Your task to perform on an android device: turn off sleep mode Image 0: 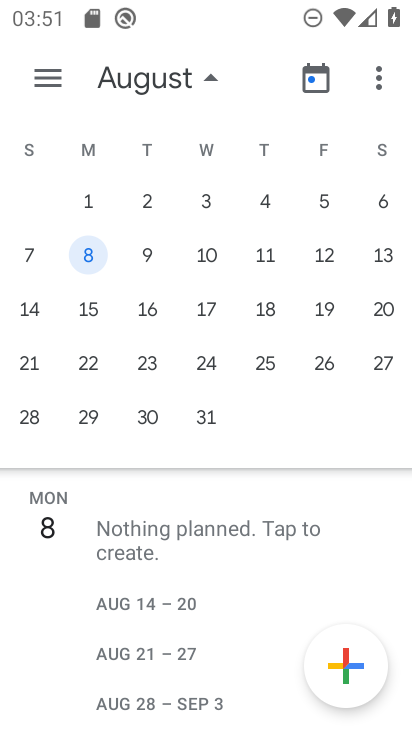
Step 0: press home button
Your task to perform on an android device: turn off sleep mode Image 1: 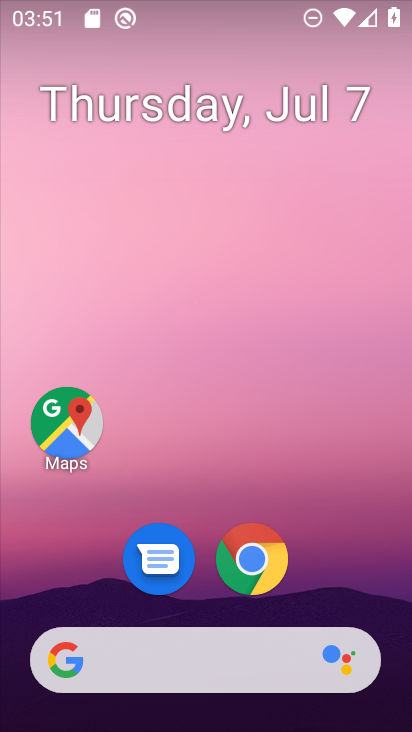
Step 1: drag from (391, 558) to (387, 215)
Your task to perform on an android device: turn off sleep mode Image 2: 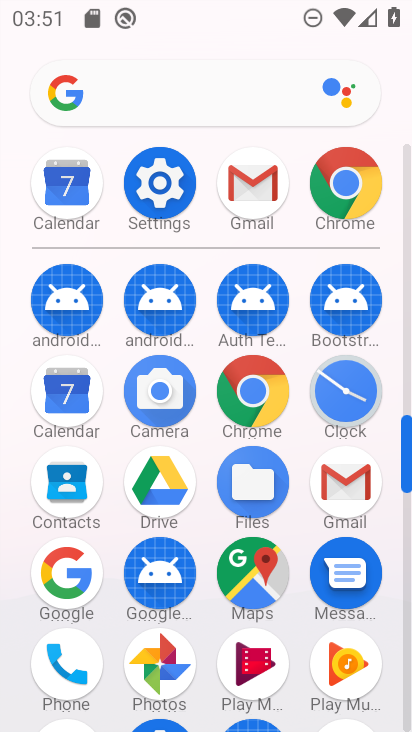
Step 2: click (169, 174)
Your task to perform on an android device: turn off sleep mode Image 3: 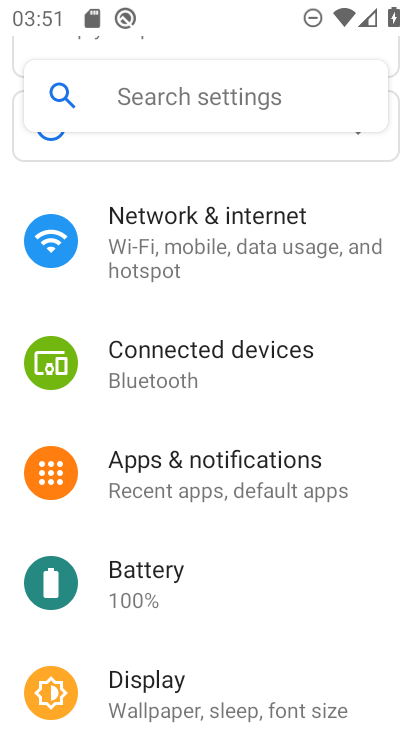
Step 3: drag from (346, 358) to (353, 451)
Your task to perform on an android device: turn off sleep mode Image 4: 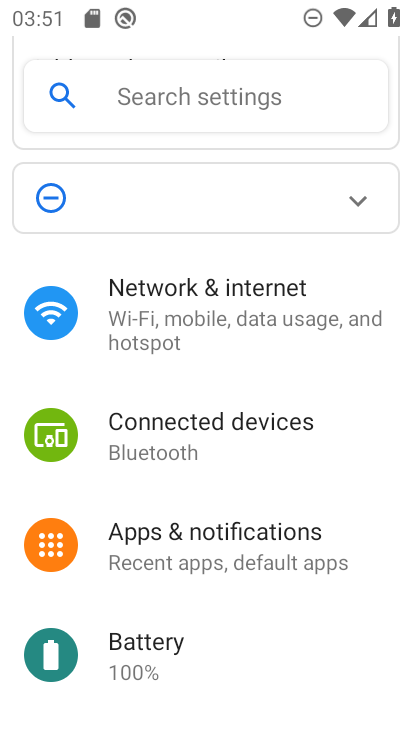
Step 4: drag from (362, 387) to (373, 512)
Your task to perform on an android device: turn off sleep mode Image 5: 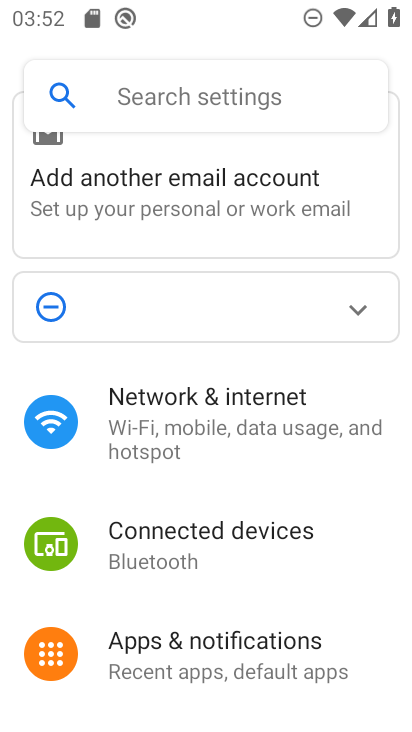
Step 5: drag from (362, 377) to (376, 567)
Your task to perform on an android device: turn off sleep mode Image 6: 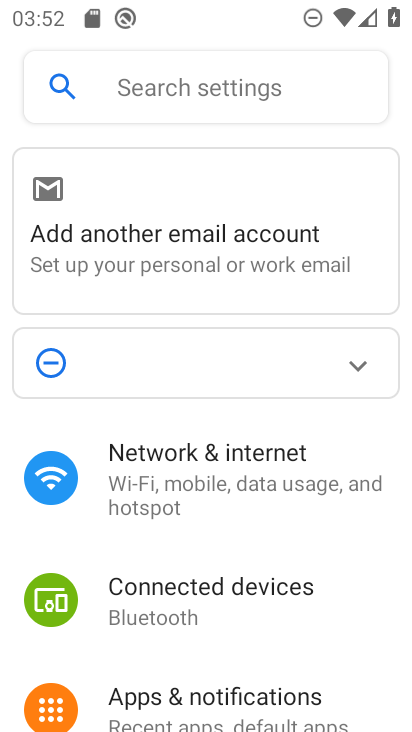
Step 6: drag from (366, 570) to (366, 422)
Your task to perform on an android device: turn off sleep mode Image 7: 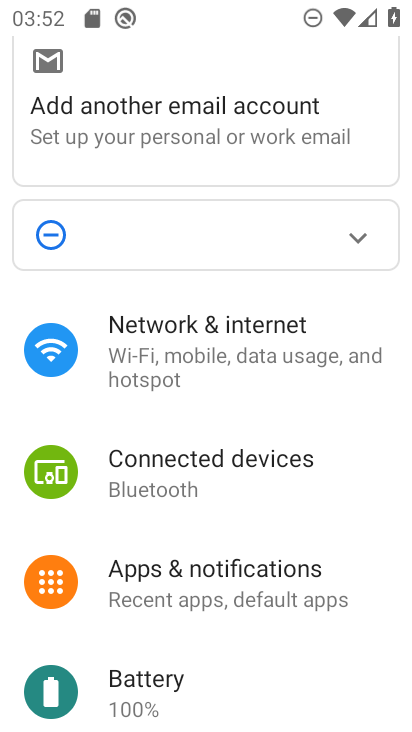
Step 7: drag from (368, 549) to (372, 366)
Your task to perform on an android device: turn off sleep mode Image 8: 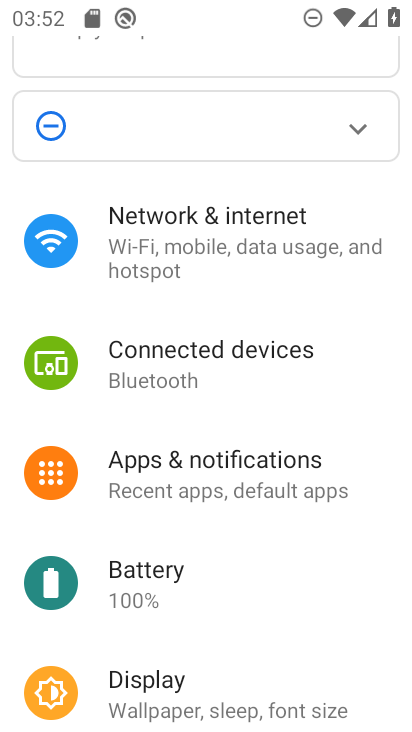
Step 8: drag from (348, 571) to (346, 421)
Your task to perform on an android device: turn off sleep mode Image 9: 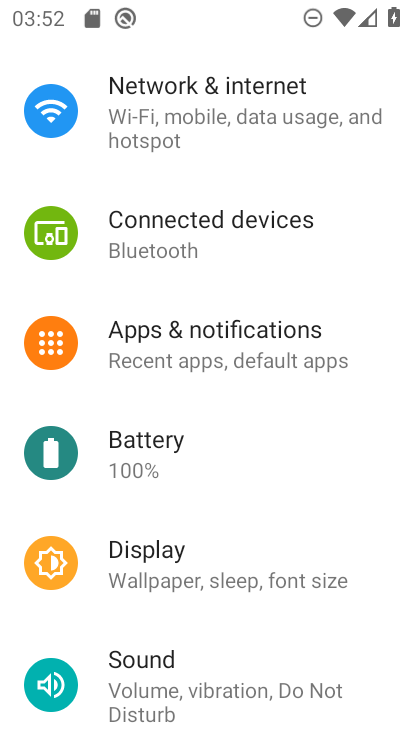
Step 9: drag from (344, 548) to (345, 395)
Your task to perform on an android device: turn off sleep mode Image 10: 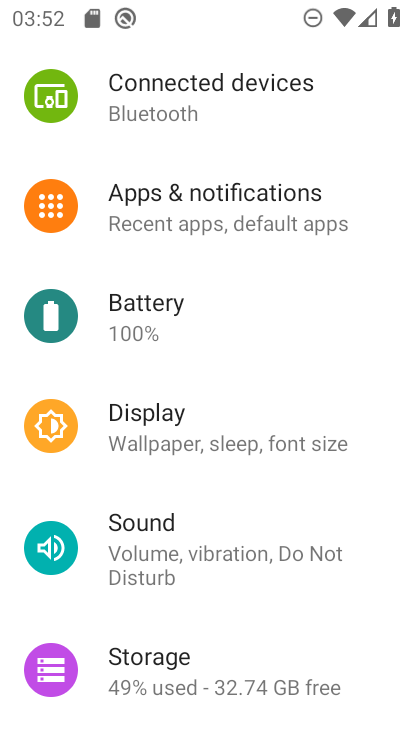
Step 10: drag from (374, 564) to (366, 411)
Your task to perform on an android device: turn off sleep mode Image 11: 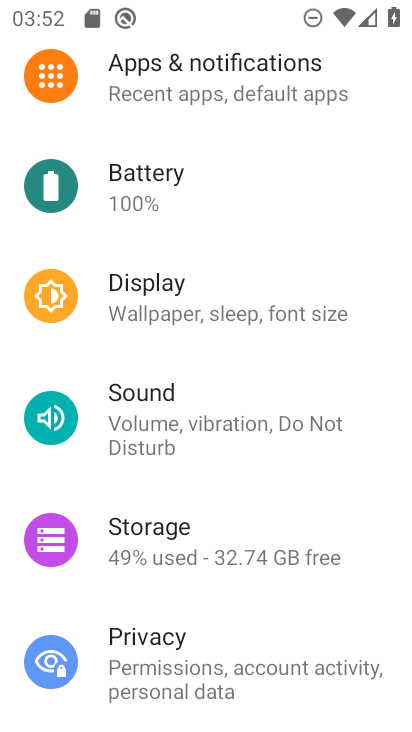
Step 11: click (267, 314)
Your task to perform on an android device: turn off sleep mode Image 12: 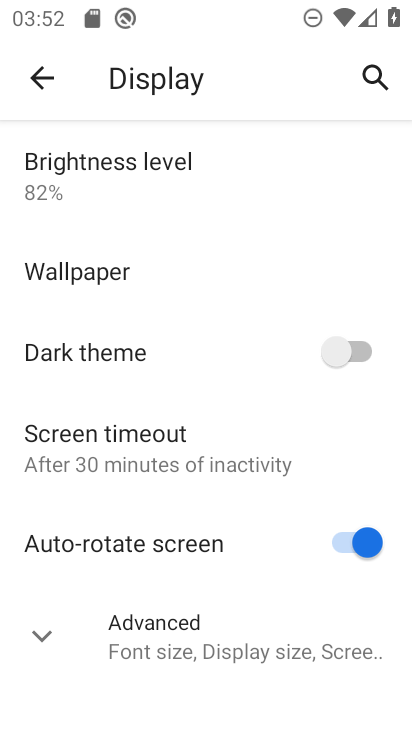
Step 12: click (251, 631)
Your task to perform on an android device: turn off sleep mode Image 13: 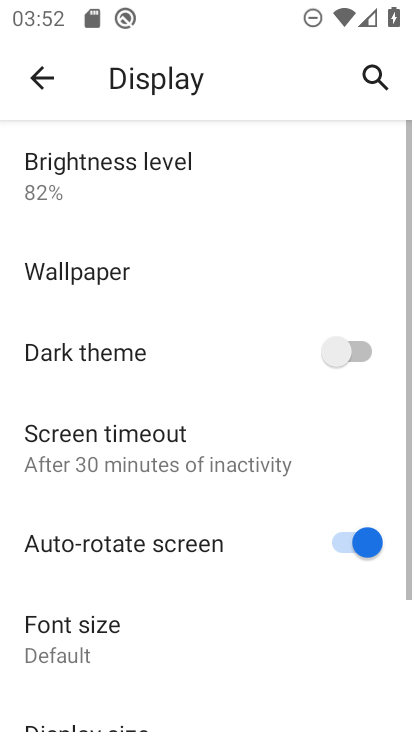
Step 13: task complete